Your task to perform on an android device: see tabs open on other devices in the chrome app Image 0: 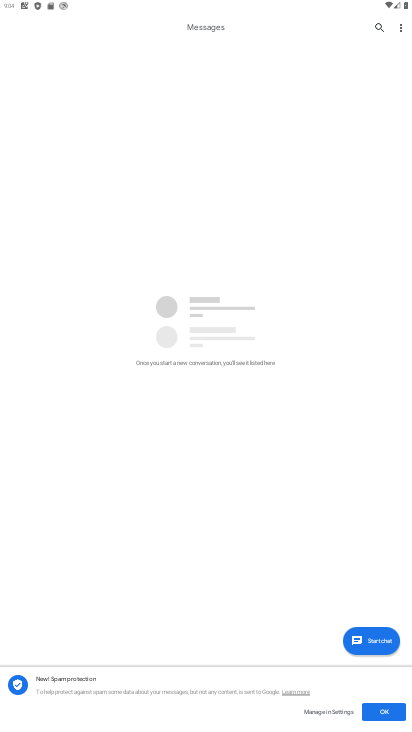
Step 0: press home button
Your task to perform on an android device: see tabs open on other devices in the chrome app Image 1: 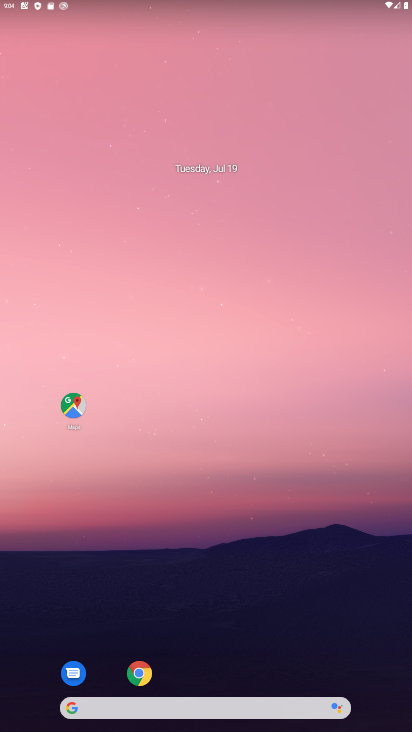
Step 1: click (136, 669)
Your task to perform on an android device: see tabs open on other devices in the chrome app Image 2: 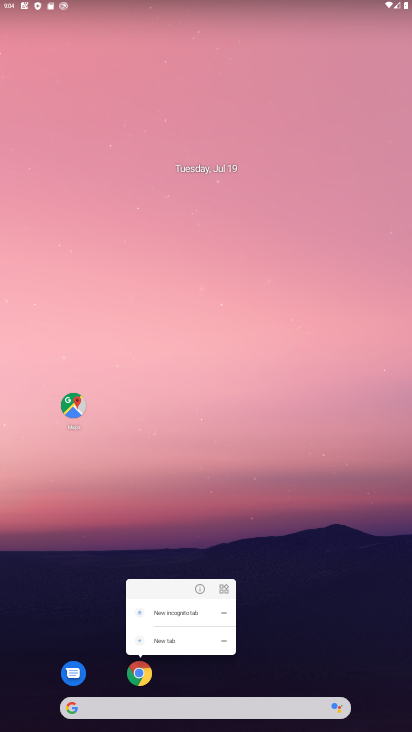
Step 2: click (146, 684)
Your task to perform on an android device: see tabs open on other devices in the chrome app Image 3: 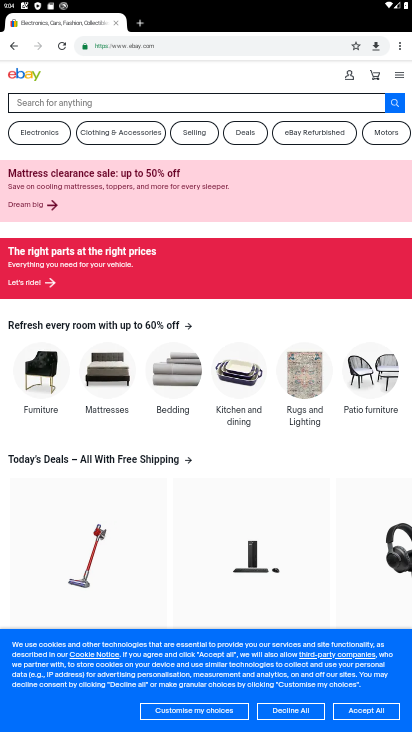
Step 3: click (398, 41)
Your task to perform on an android device: see tabs open on other devices in the chrome app Image 4: 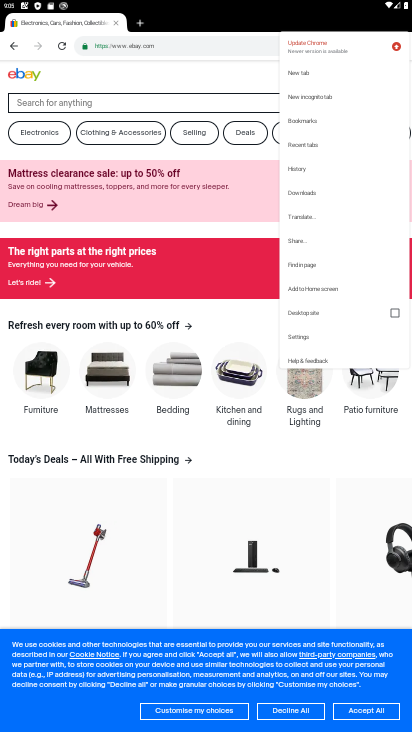
Step 4: click (326, 146)
Your task to perform on an android device: see tabs open on other devices in the chrome app Image 5: 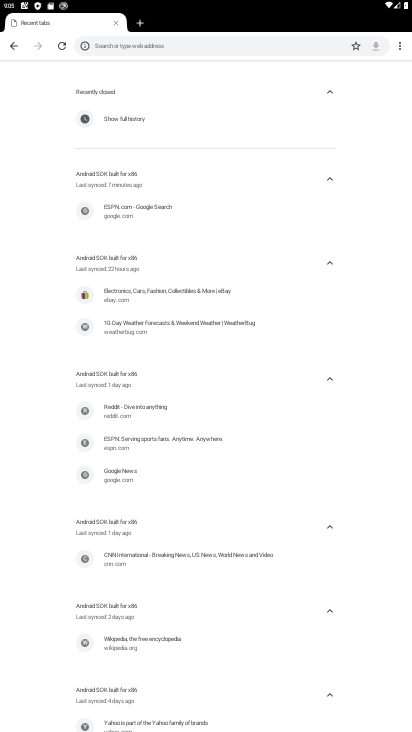
Step 5: task complete